Your task to perform on an android device: search for starred emails in the gmail app Image 0: 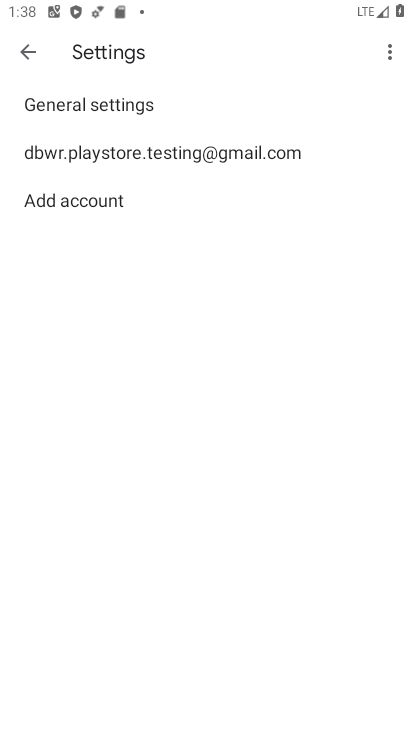
Step 0: press home button
Your task to perform on an android device: search for starred emails in the gmail app Image 1: 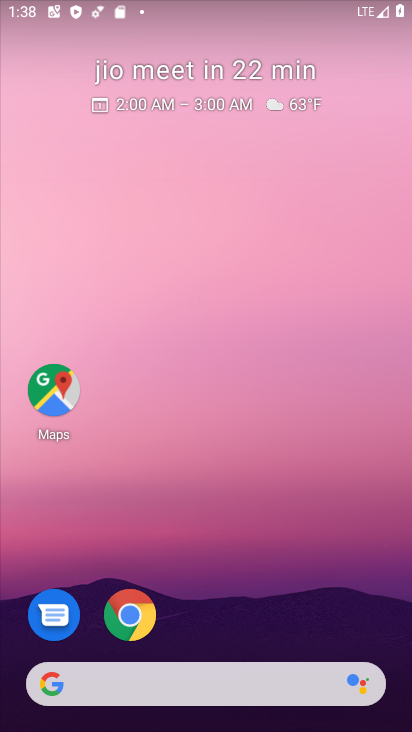
Step 1: drag from (236, 613) to (325, 111)
Your task to perform on an android device: search for starred emails in the gmail app Image 2: 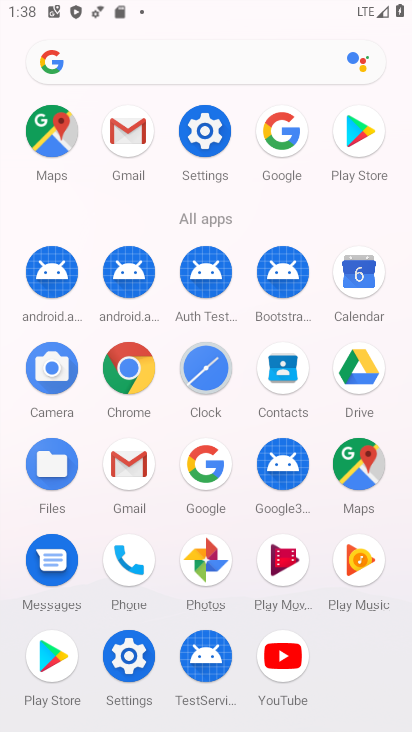
Step 2: click (129, 484)
Your task to perform on an android device: search for starred emails in the gmail app Image 3: 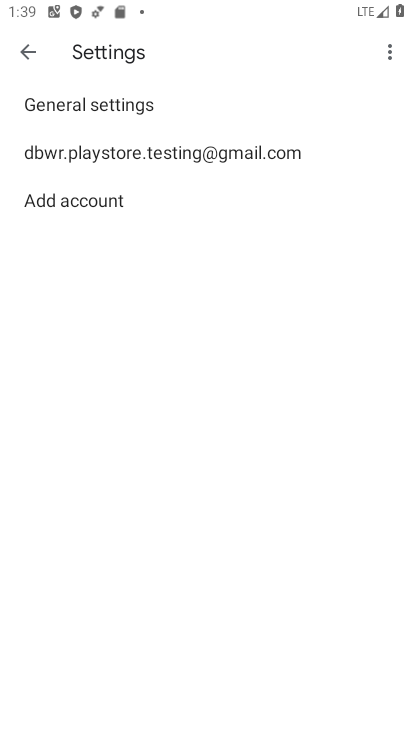
Step 3: click (44, 59)
Your task to perform on an android device: search for starred emails in the gmail app Image 4: 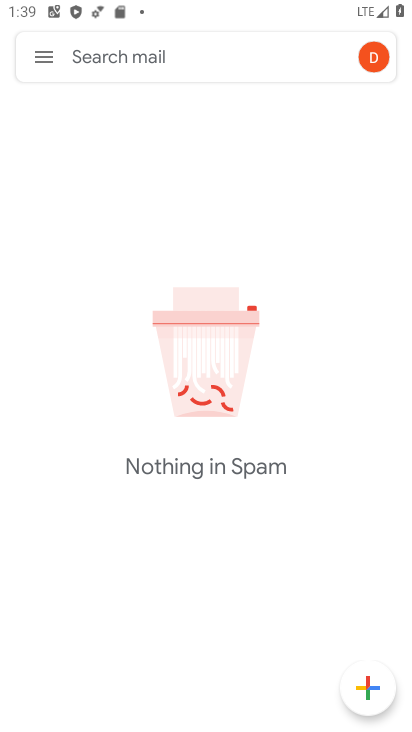
Step 4: click (44, 58)
Your task to perform on an android device: search for starred emails in the gmail app Image 5: 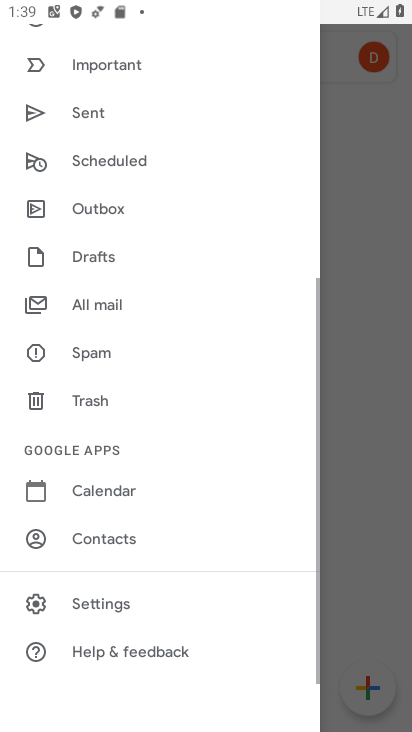
Step 5: drag from (147, 132) to (97, 457)
Your task to perform on an android device: search for starred emails in the gmail app Image 6: 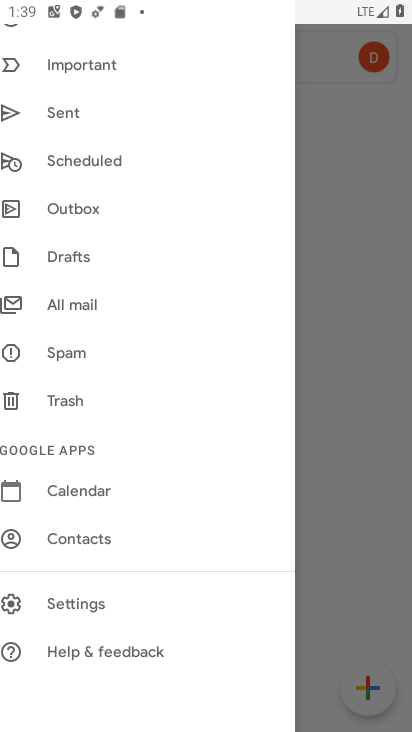
Step 6: drag from (140, 237) to (124, 657)
Your task to perform on an android device: search for starred emails in the gmail app Image 7: 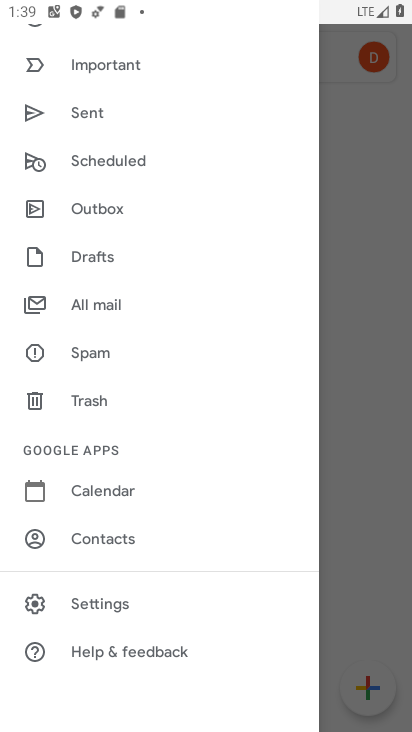
Step 7: drag from (236, 200) to (155, 593)
Your task to perform on an android device: search for starred emails in the gmail app Image 8: 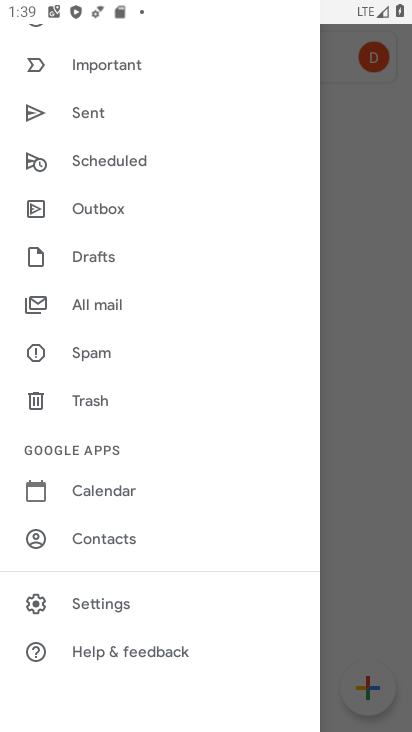
Step 8: drag from (165, 128) to (58, 594)
Your task to perform on an android device: search for starred emails in the gmail app Image 9: 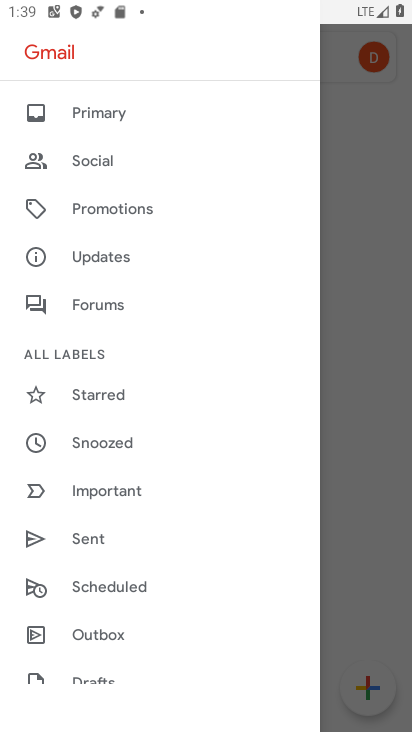
Step 9: click (157, 410)
Your task to perform on an android device: search for starred emails in the gmail app Image 10: 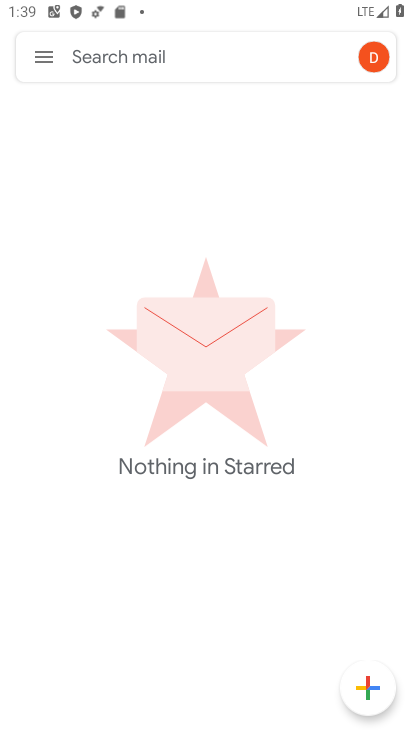
Step 10: task complete